Your task to perform on an android device: Open calendar and show me the second week of next month Image 0: 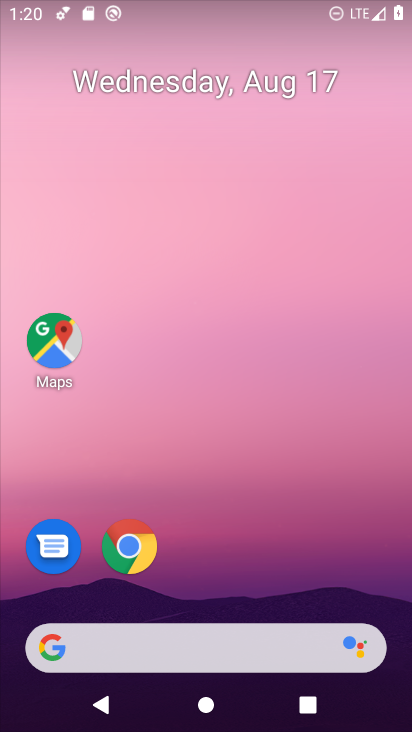
Step 0: drag from (224, 594) to (187, 87)
Your task to perform on an android device: Open calendar and show me the second week of next month Image 1: 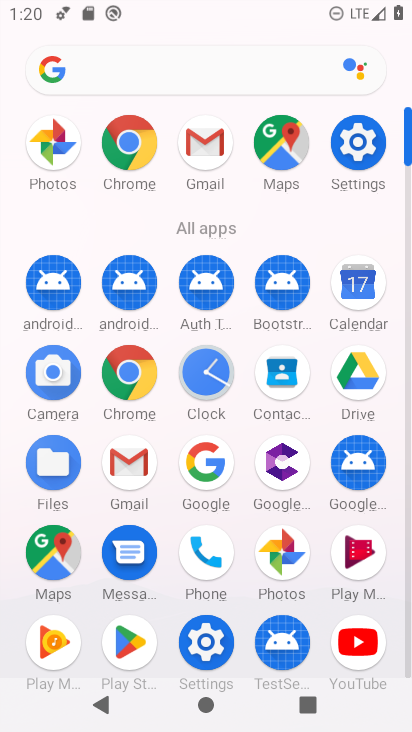
Step 1: click (358, 285)
Your task to perform on an android device: Open calendar and show me the second week of next month Image 2: 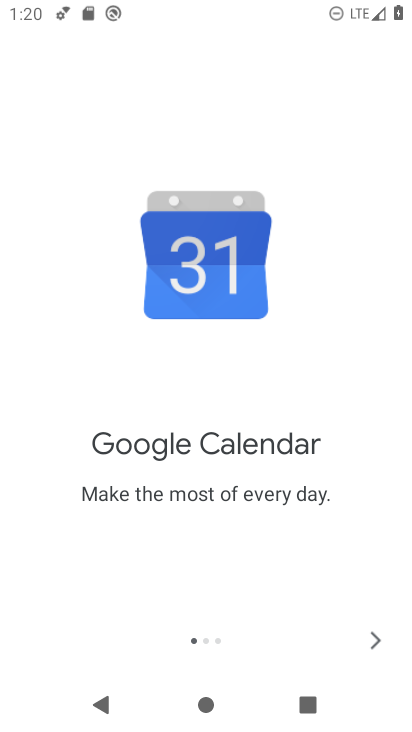
Step 2: click (377, 640)
Your task to perform on an android device: Open calendar and show me the second week of next month Image 3: 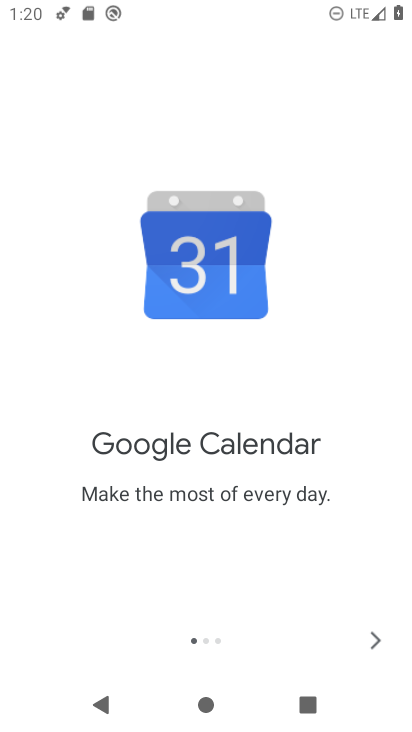
Step 3: click (377, 640)
Your task to perform on an android device: Open calendar and show me the second week of next month Image 4: 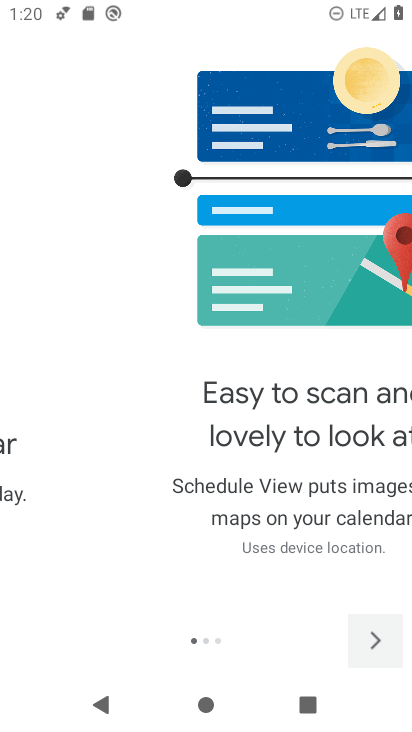
Step 4: click (377, 640)
Your task to perform on an android device: Open calendar and show me the second week of next month Image 5: 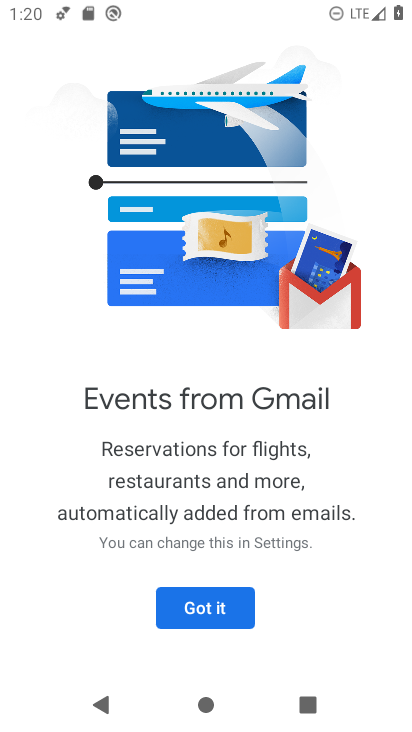
Step 5: click (211, 609)
Your task to perform on an android device: Open calendar and show me the second week of next month Image 6: 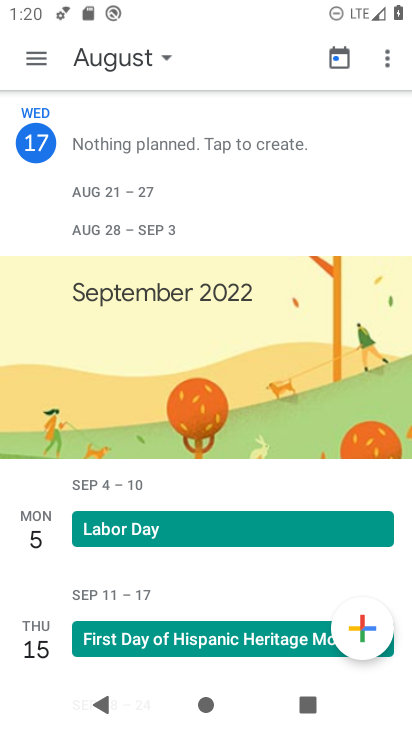
Step 6: click (36, 56)
Your task to perform on an android device: Open calendar and show me the second week of next month Image 7: 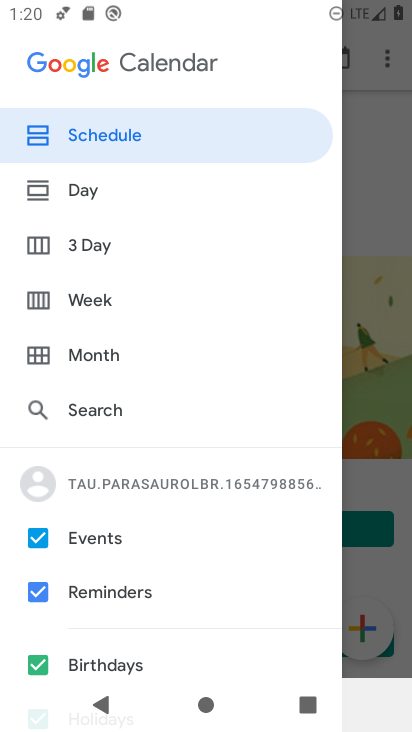
Step 7: click (91, 296)
Your task to perform on an android device: Open calendar and show me the second week of next month Image 8: 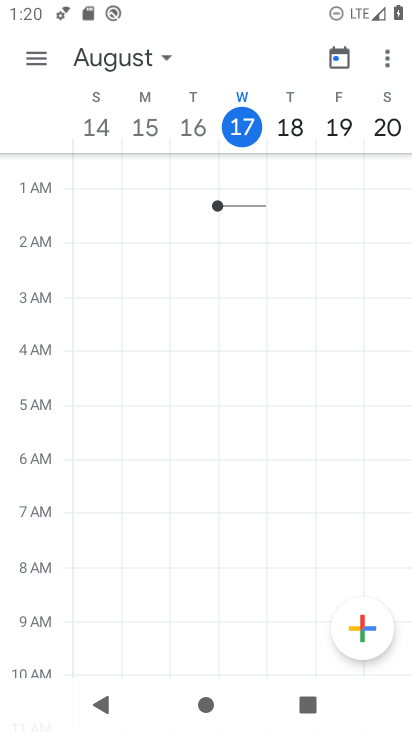
Step 8: click (168, 57)
Your task to perform on an android device: Open calendar and show me the second week of next month Image 9: 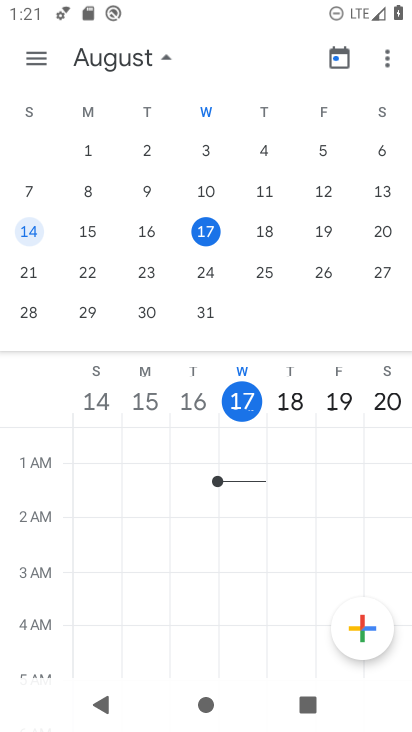
Step 9: drag from (382, 202) to (102, 173)
Your task to perform on an android device: Open calendar and show me the second week of next month Image 10: 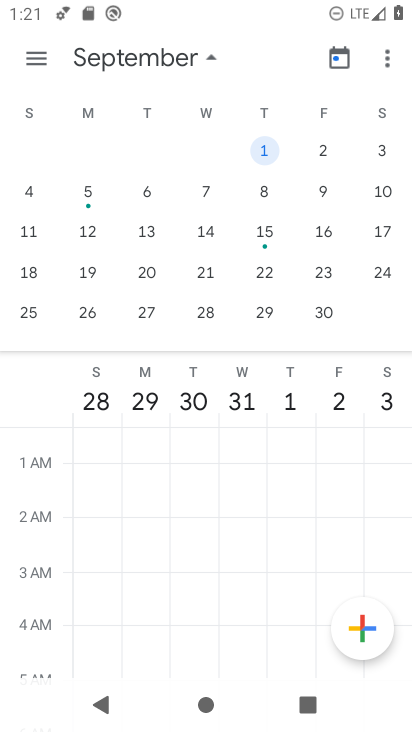
Step 10: click (208, 191)
Your task to perform on an android device: Open calendar and show me the second week of next month Image 11: 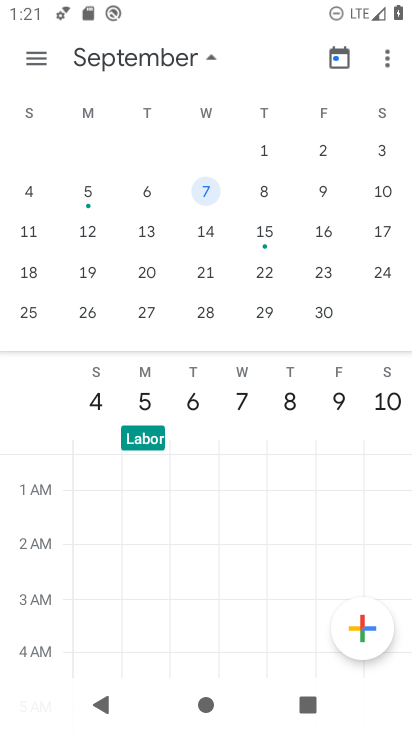
Step 11: task complete